Your task to perform on an android device: check out phone information Image 0: 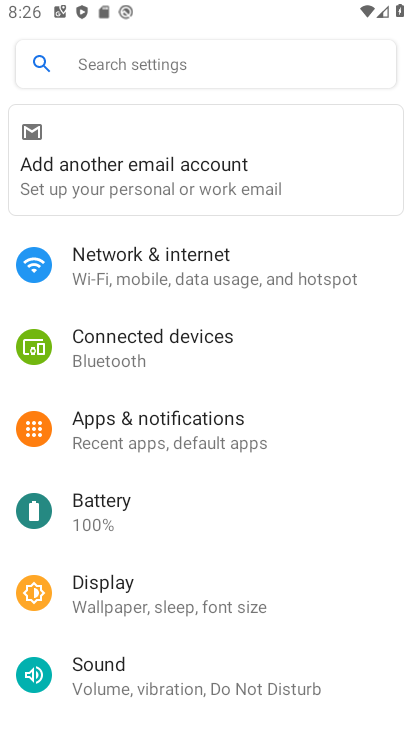
Step 0: drag from (211, 588) to (263, 432)
Your task to perform on an android device: check out phone information Image 1: 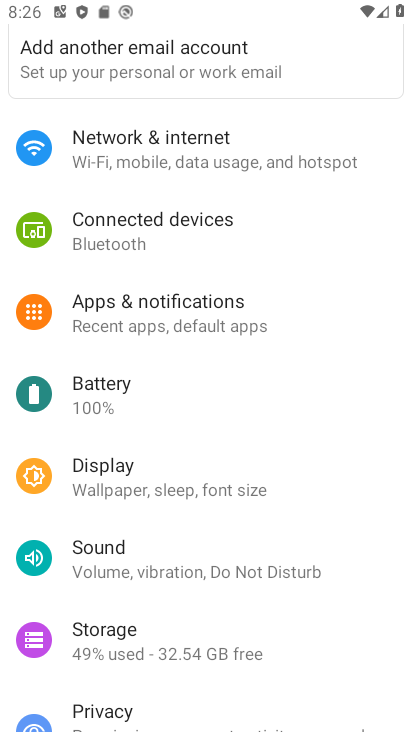
Step 1: drag from (195, 535) to (228, 433)
Your task to perform on an android device: check out phone information Image 2: 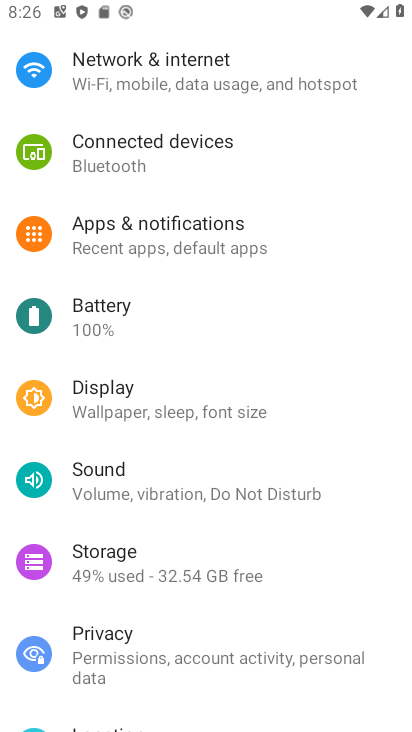
Step 2: drag from (201, 536) to (240, 427)
Your task to perform on an android device: check out phone information Image 3: 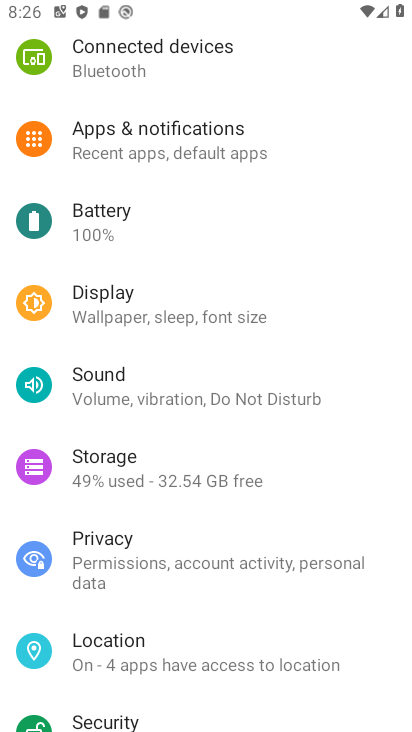
Step 3: drag from (196, 527) to (243, 371)
Your task to perform on an android device: check out phone information Image 4: 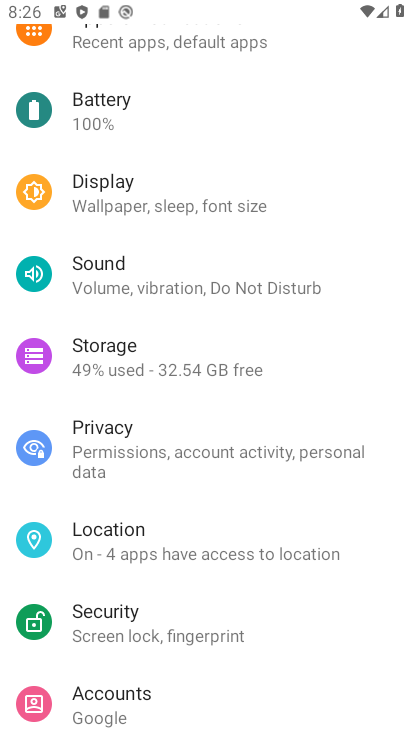
Step 4: drag from (188, 499) to (246, 397)
Your task to perform on an android device: check out phone information Image 5: 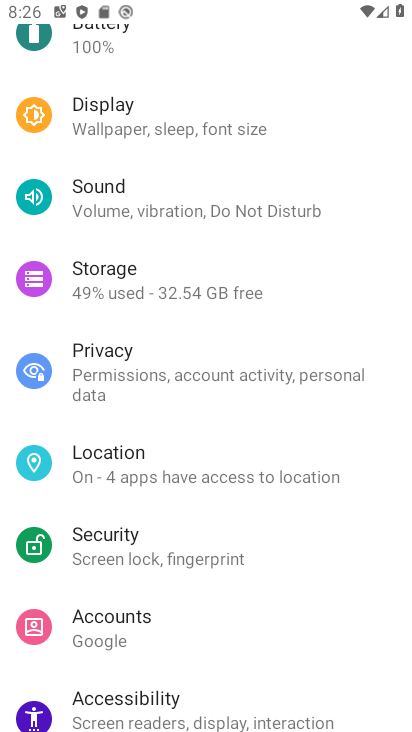
Step 5: drag from (209, 539) to (265, 379)
Your task to perform on an android device: check out phone information Image 6: 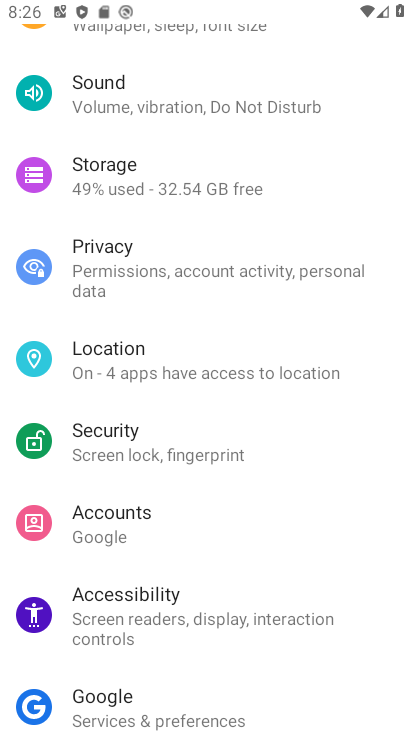
Step 6: drag from (189, 524) to (243, 374)
Your task to perform on an android device: check out phone information Image 7: 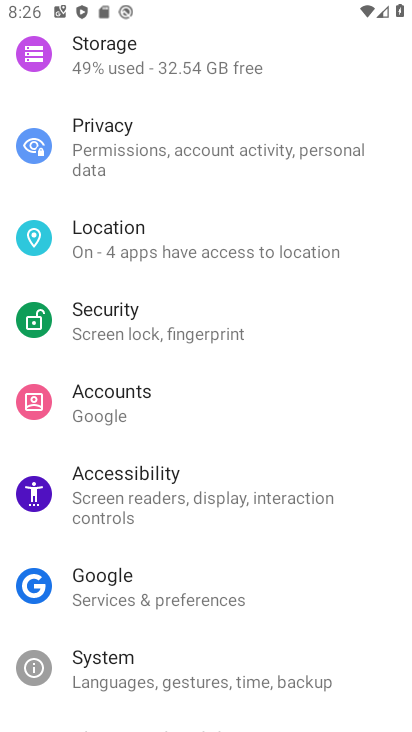
Step 7: drag from (196, 559) to (241, 425)
Your task to perform on an android device: check out phone information Image 8: 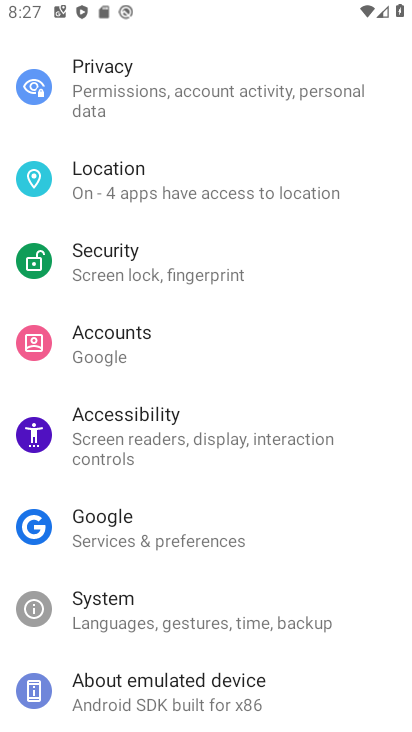
Step 8: click (190, 682)
Your task to perform on an android device: check out phone information Image 9: 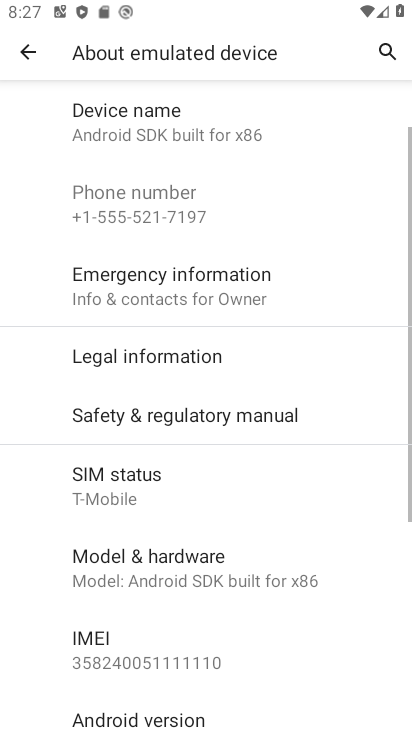
Step 9: task complete